Your task to perform on an android device: change alarm snooze length Image 0: 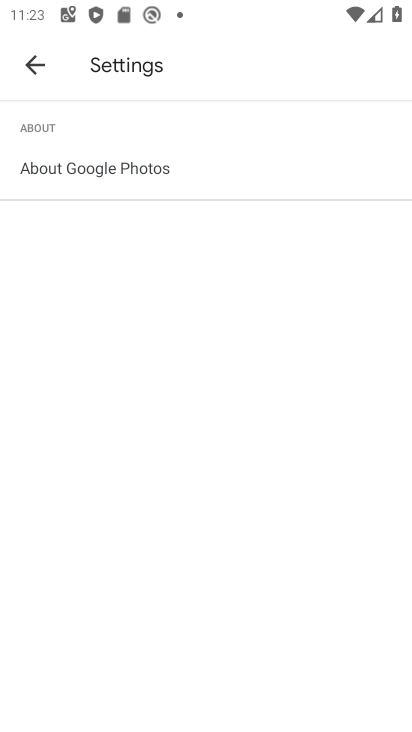
Step 0: press home button
Your task to perform on an android device: change alarm snooze length Image 1: 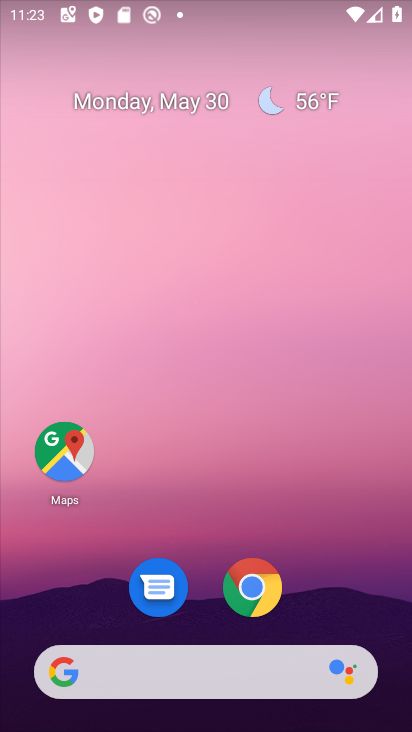
Step 1: drag from (302, 608) to (284, 16)
Your task to perform on an android device: change alarm snooze length Image 2: 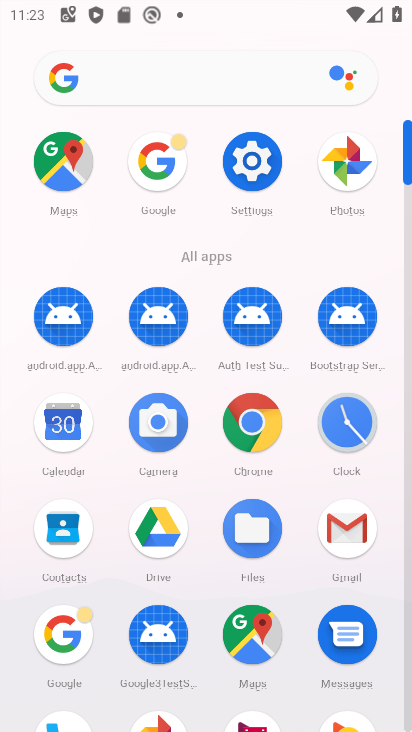
Step 2: click (341, 421)
Your task to perform on an android device: change alarm snooze length Image 3: 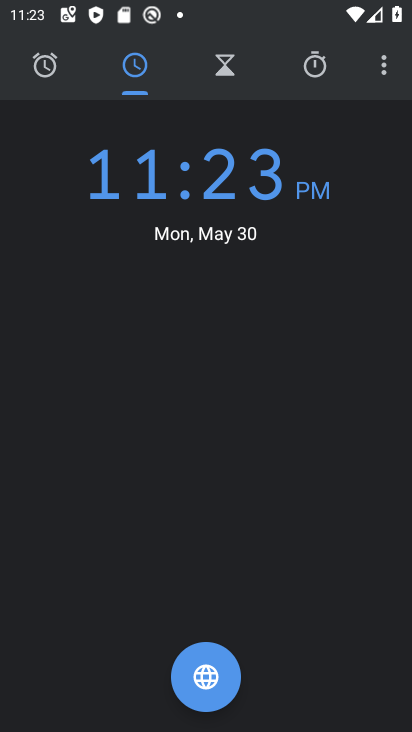
Step 3: click (375, 75)
Your task to perform on an android device: change alarm snooze length Image 4: 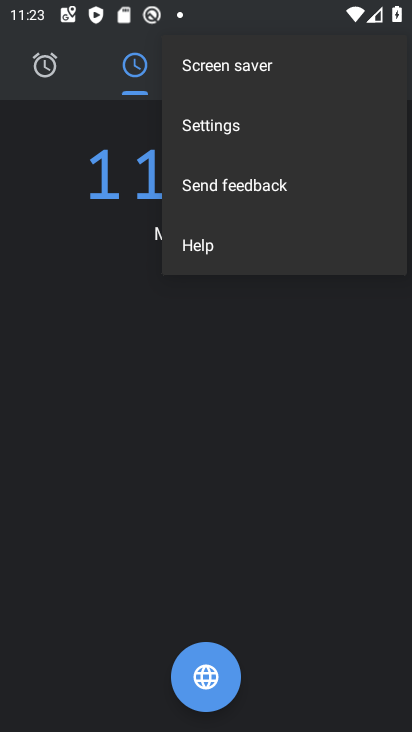
Step 4: click (202, 119)
Your task to perform on an android device: change alarm snooze length Image 5: 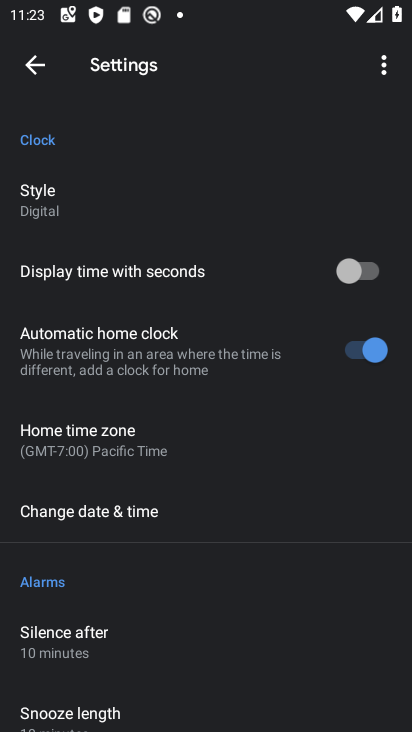
Step 5: click (102, 714)
Your task to perform on an android device: change alarm snooze length Image 6: 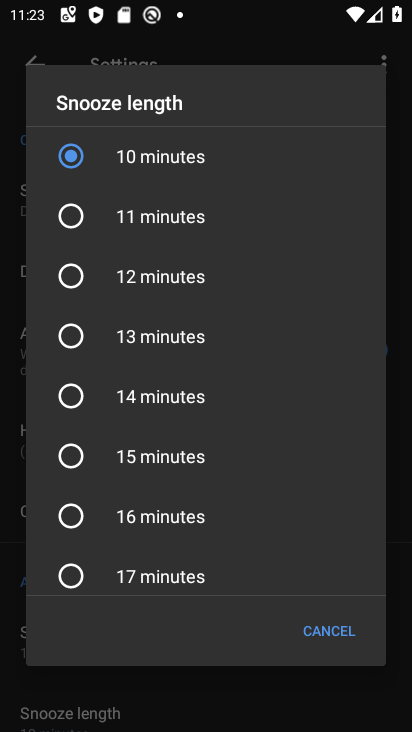
Step 6: click (108, 450)
Your task to perform on an android device: change alarm snooze length Image 7: 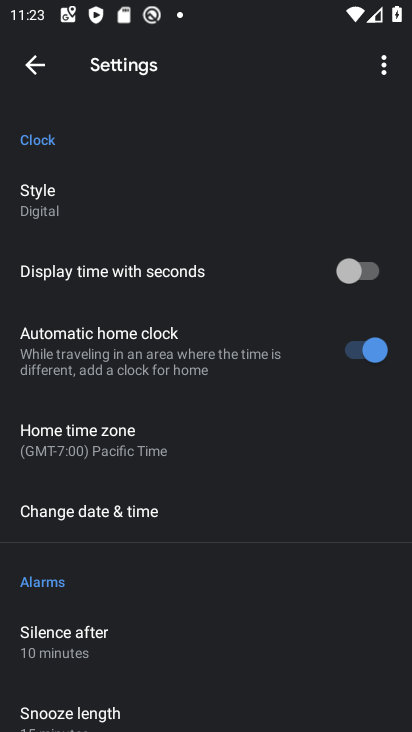
Step 7: task complete